Your task to perform on an android device: turn vacation reply on in the gmail app Image 0: 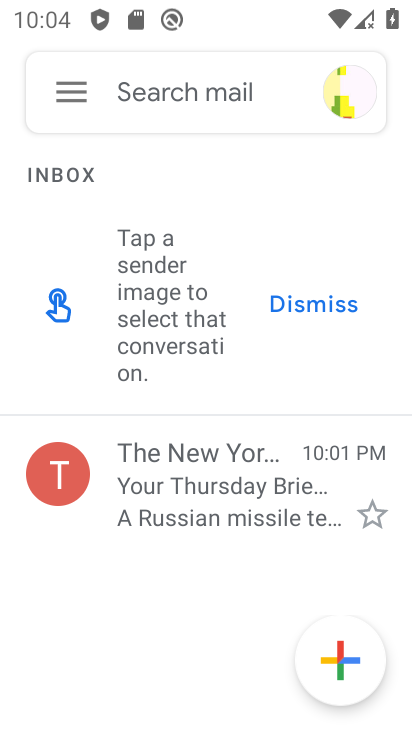
Step 0: click (80, 109)
Your task to perform on an android device: turn vacation reply on in the gmail app Image 1: 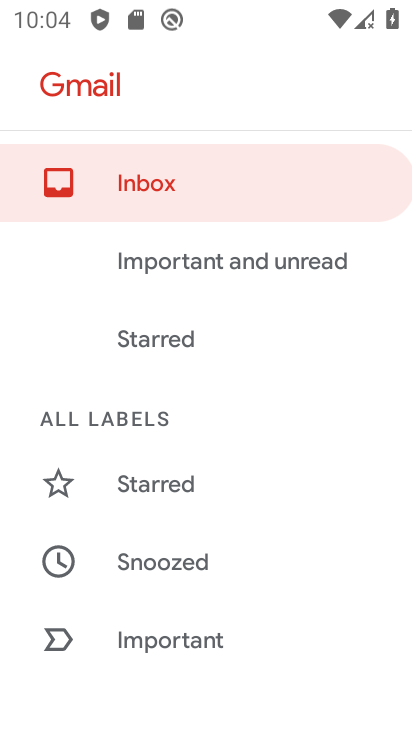
Step 1: drag from (229, 580) to (291, 124)
Your task to perform on an android device: turn vacation reply on in the gmail app Image 2: 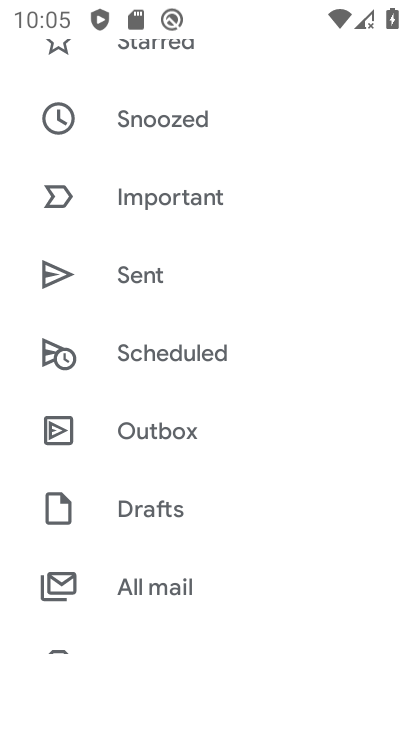
Step 2: drag from (213, 550) to (269, 156)
Your task to perform on an android device: turn vacation reply on in the gmail app Image 3: 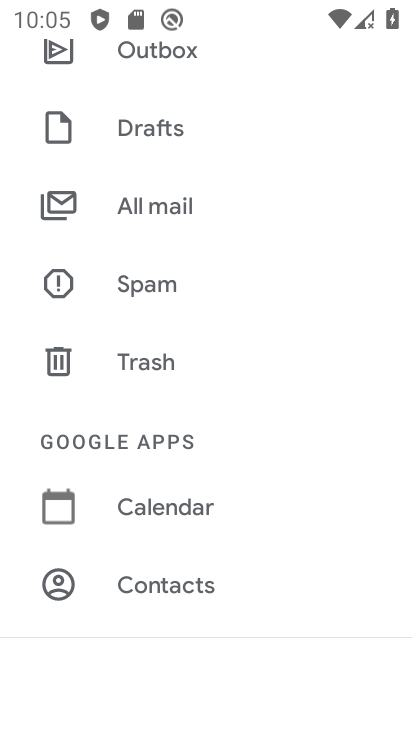
Step 3: drag from (183, 570) to (246, 212)
Your task to perform on an android device: turn vacation reply on in the gmail app Image 4: 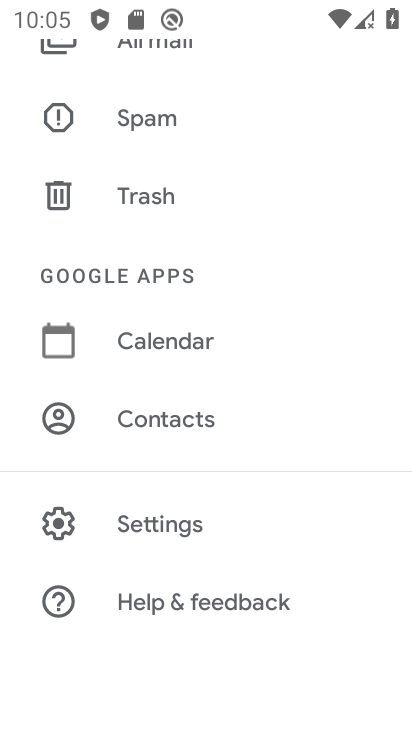
Step 4: click (202, 540)
Your task to perform on an android device: turn vacation reply on in the gmail app Image 5: 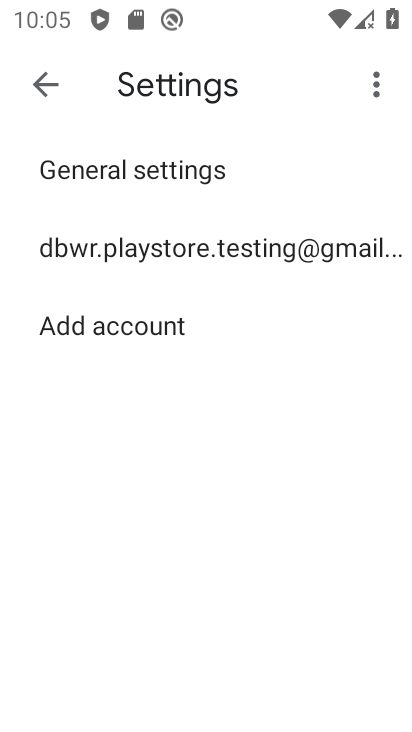
Step 5: click (223, 257)
Your task to perform on an android device: turn vacation reply on in the gmail app Image 6: 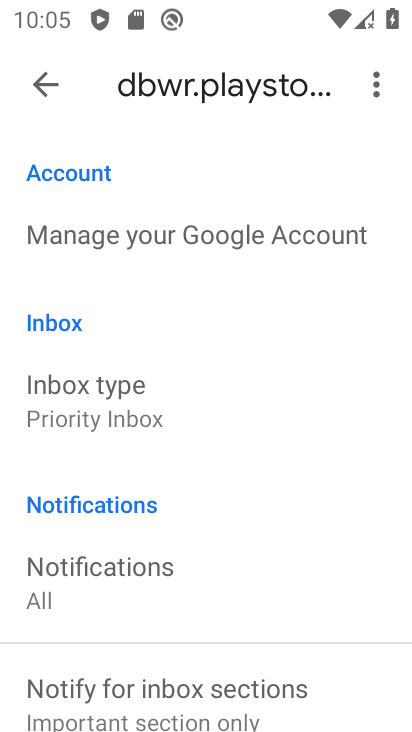
Step 6: drag from (149, 474) to (184, 214)
Your task to perform on an android device: turn vacation reply on in the gmail app Image 7: 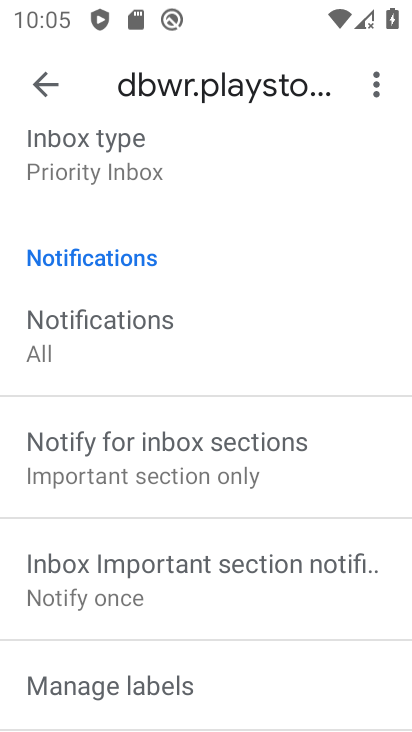
Step 7: drag from (166, 474) to (217, 127)
Your task to perform on an android device: turn vacation reply on in the gmail app Image 8: 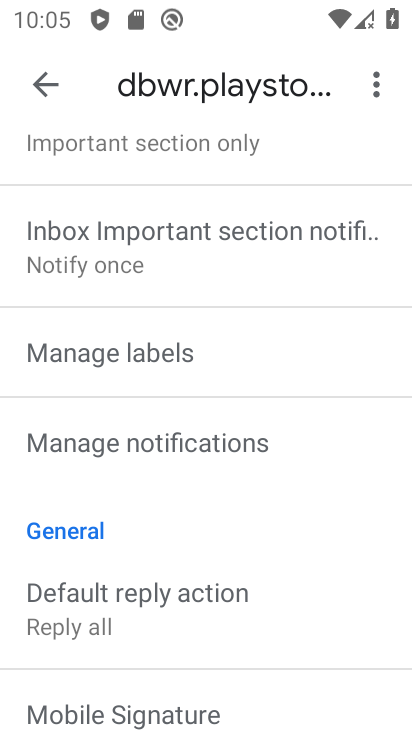
Step 8: drag from (208, 501) to (264, 120)
Your task to perform on an android device: turn vacation reply on in the gmail app Image 9: 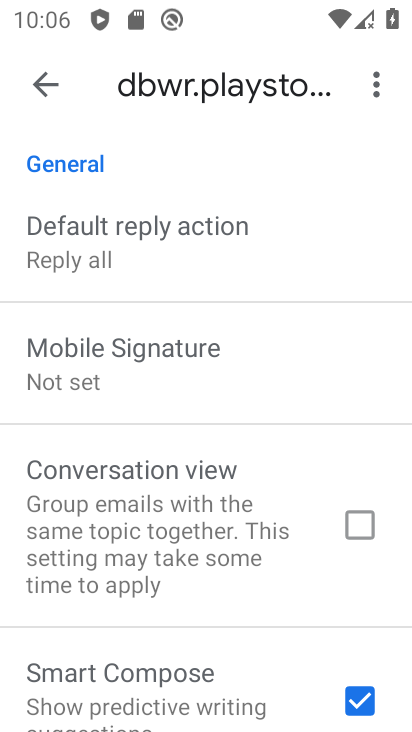
Step 9: drag from (171, 621) to (212, 324)
Your task to perform on an android device: turn vacation reply on in the gmail app Image 10: 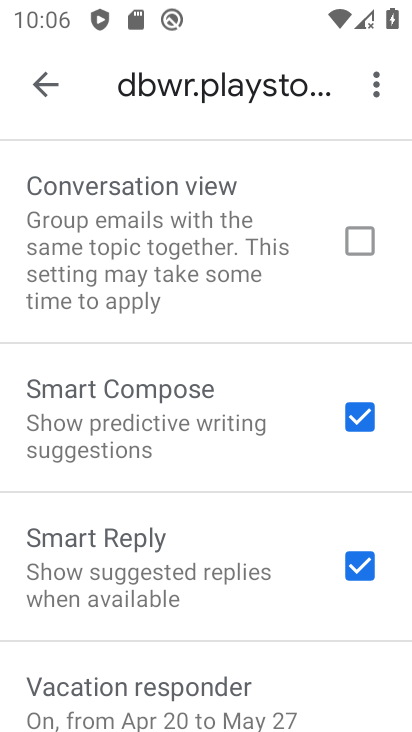
Step 10: click (189, 686)
Your task to perform on an android device: turn vacation reply on in the gmail app Image 11: 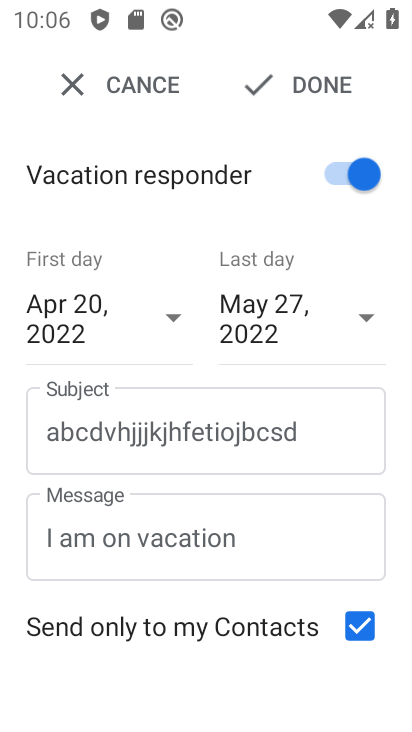
Step 11: task complete